Your task to perform on an android device: turn pop-ups off in chrome Image 0: 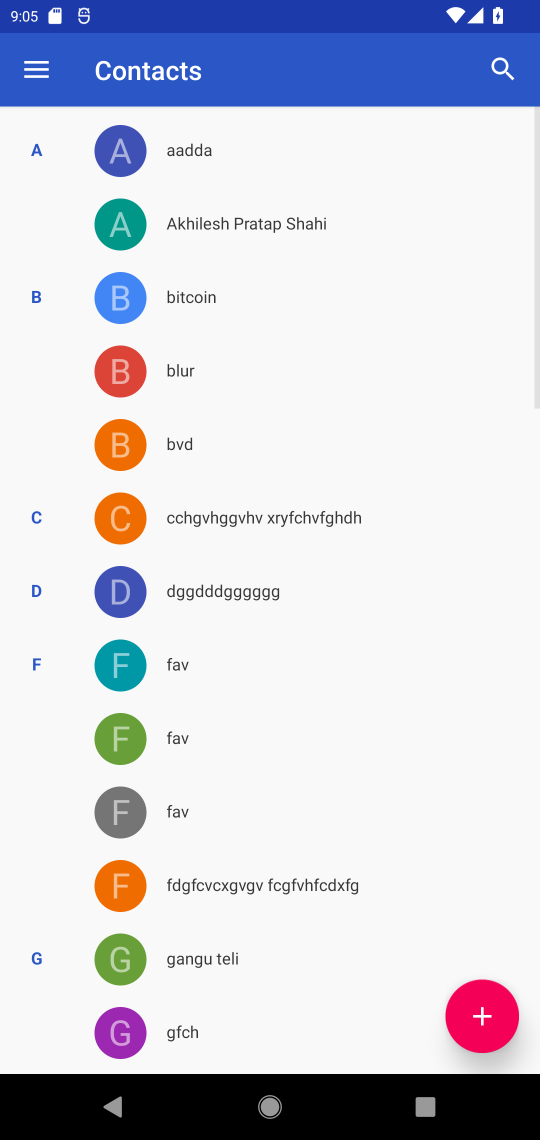
Step 0: press home button
Your task to perform on an android device: turn pop-ups off in chrome Image 1: 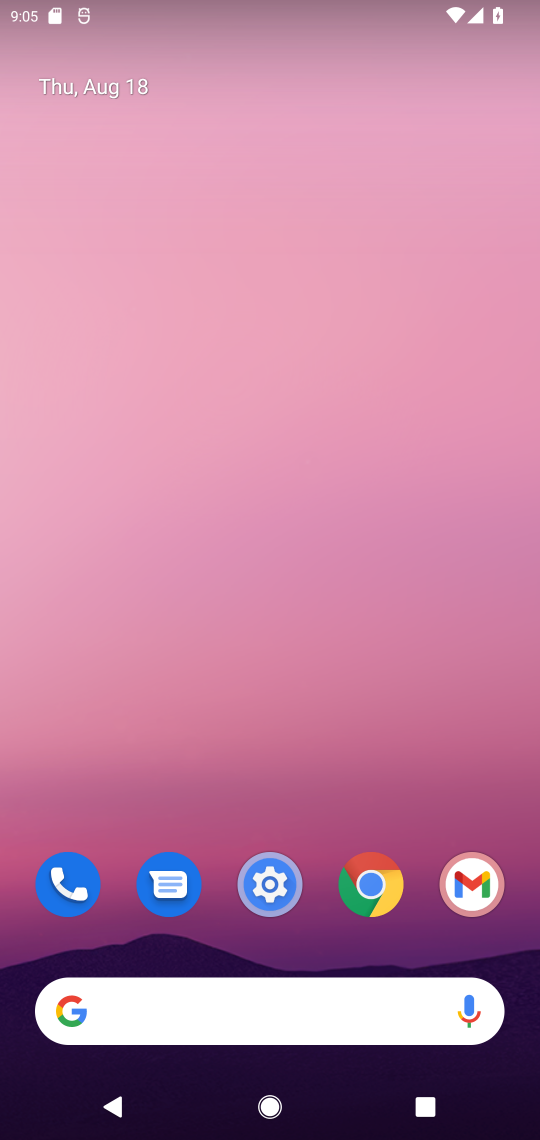
Step 1: click (375, 881)
Your task to perform on an android device: turn pop-ups off in chrome Image 2: 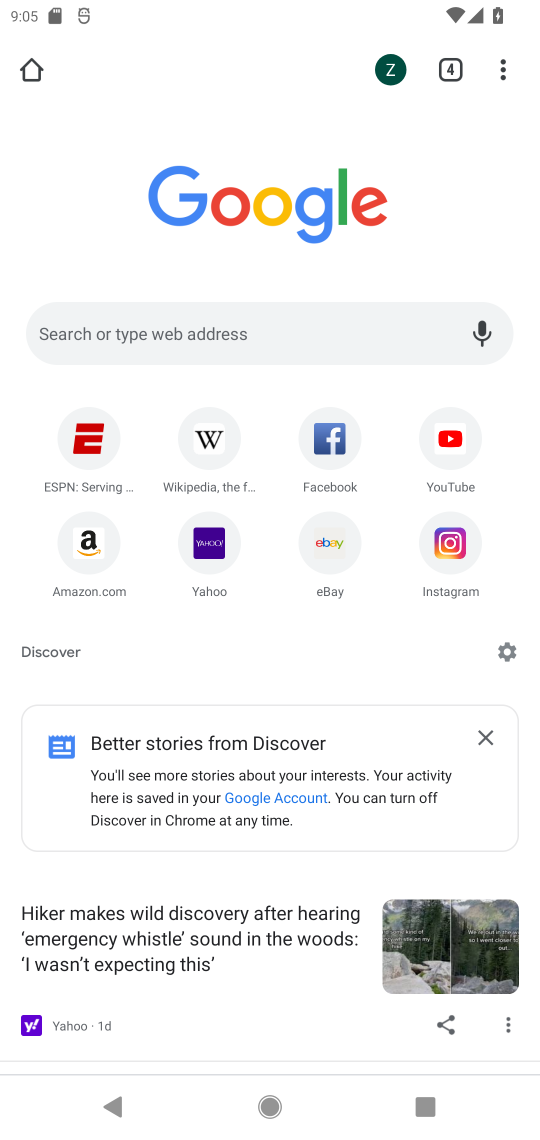
Step 2: click (519, 67)
Your task to perform on an android device: turn pop-ups off in chrome Image 3: 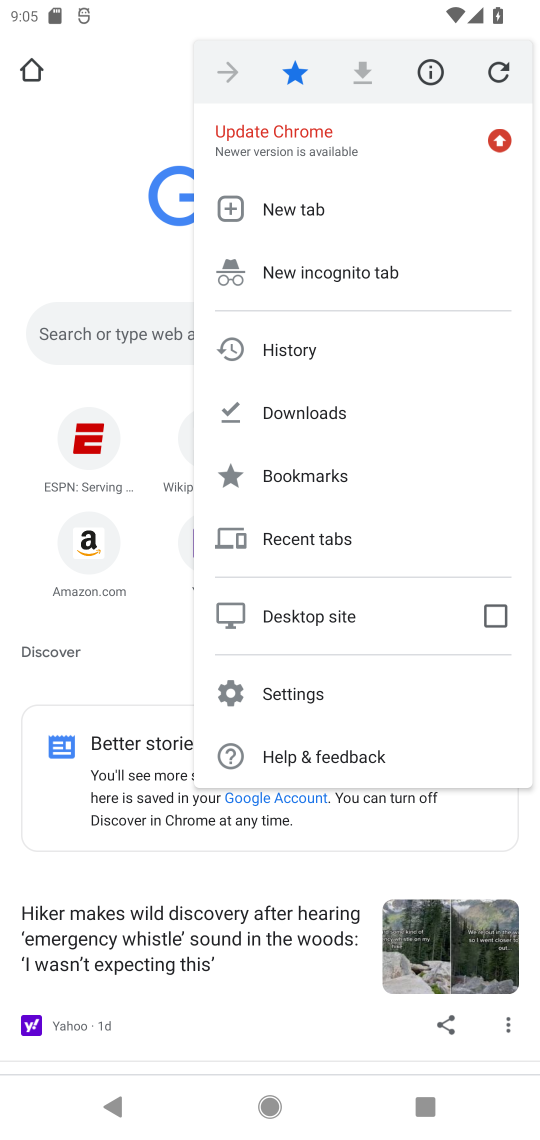
Step 3: click (319, 704)
Your task to perform on an android device: turn pop-ups off in chrome Image 4: 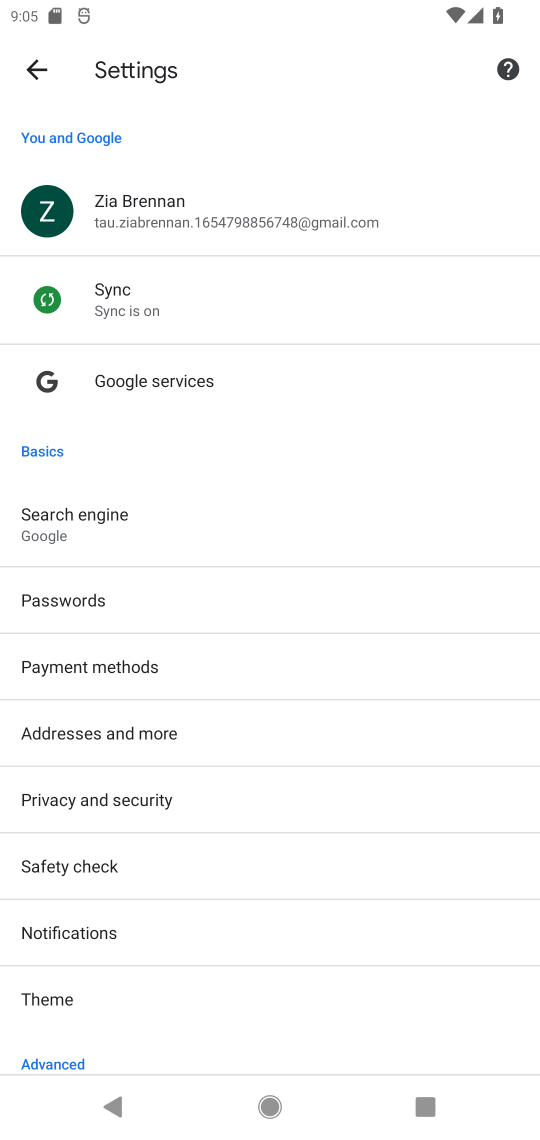
Step 4: drag from (266, 880) to (273, 40)
Your task to perform on an android device: turn pop-ups off in chrome Image 5: 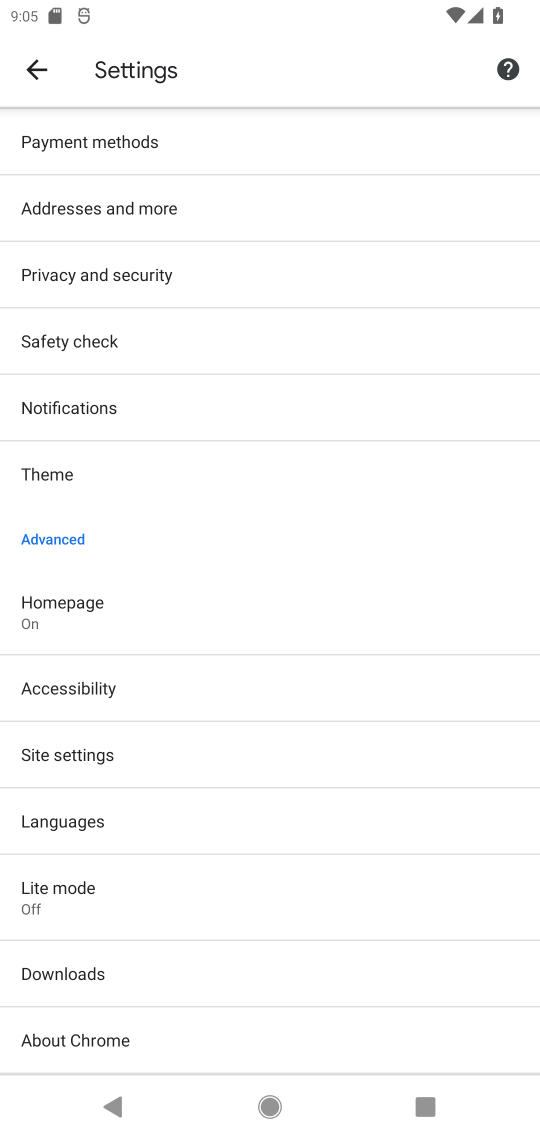
Step 5: click (143, 752)
Your task to perform on an android device: turn pop-ups off in chrome Image 6: 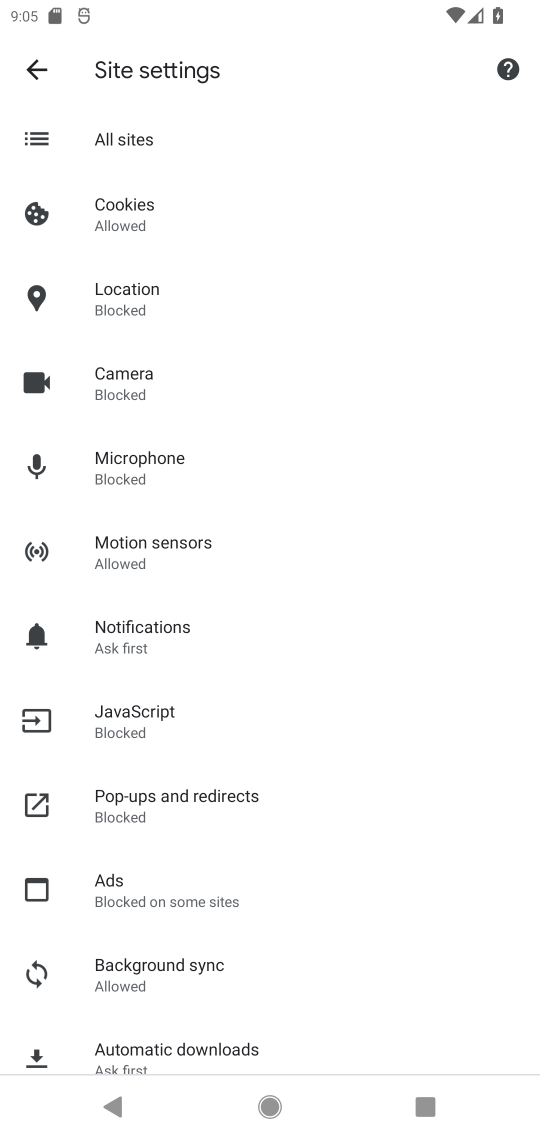
Step 6: click (222, 813)
Your task to perform on an android device: turn pop-ups off in chrome Image 7: 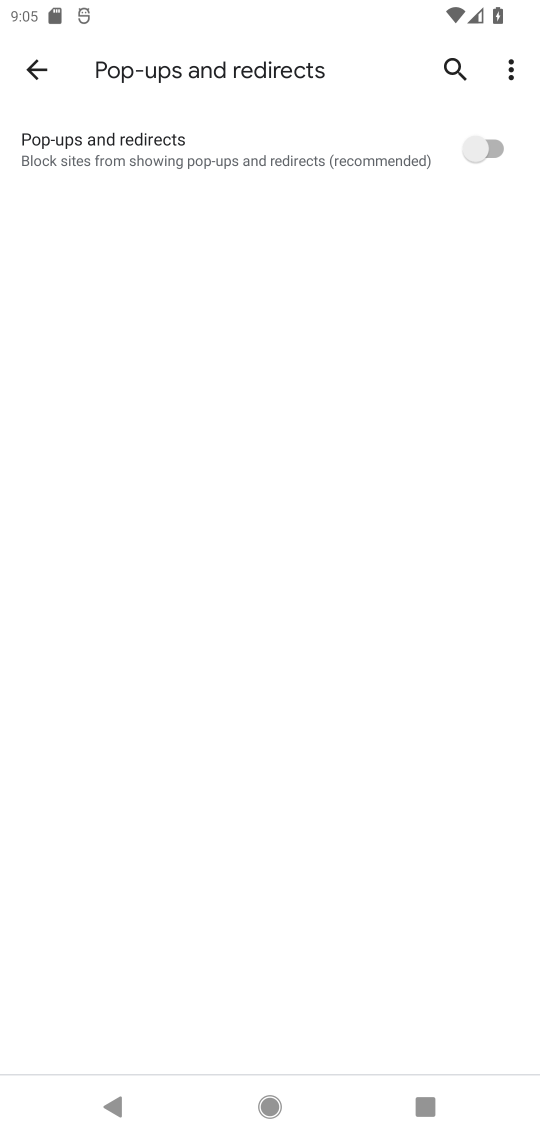
Step 7: task complete